Your task to perform on an android device: set the stopwatch Image 0: 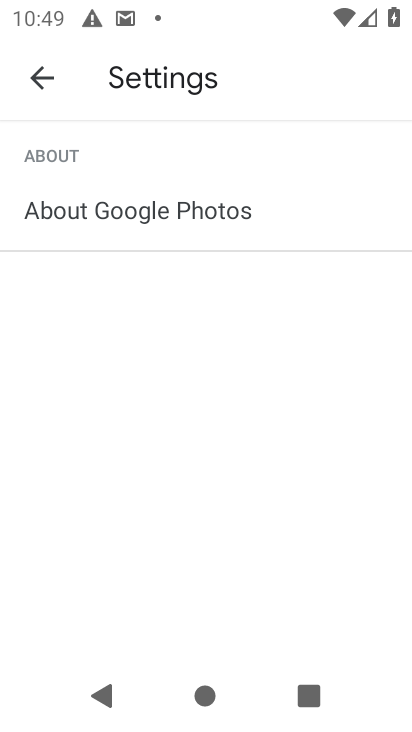
Step 0: press back button
Your task to perform on an android device: set the stopwatch Image 1: 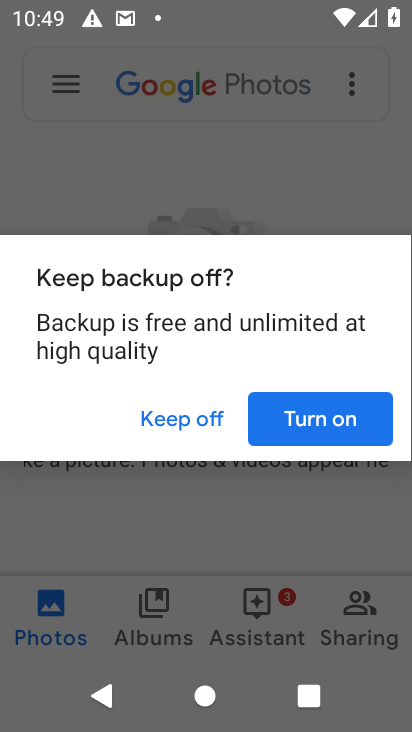
Step 1: press home button
Your task to perform on an android device: set the stopwatch Image 2: 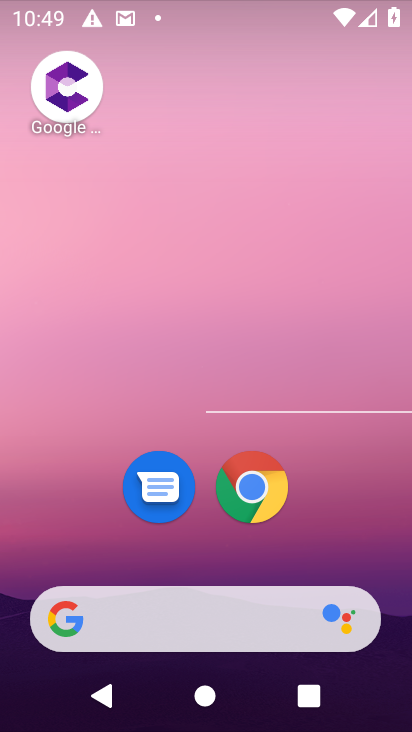
Step 2: drag from (196, 588) to (279, 21)
Your task to perform on an android device: set the stopwatch Image 3: 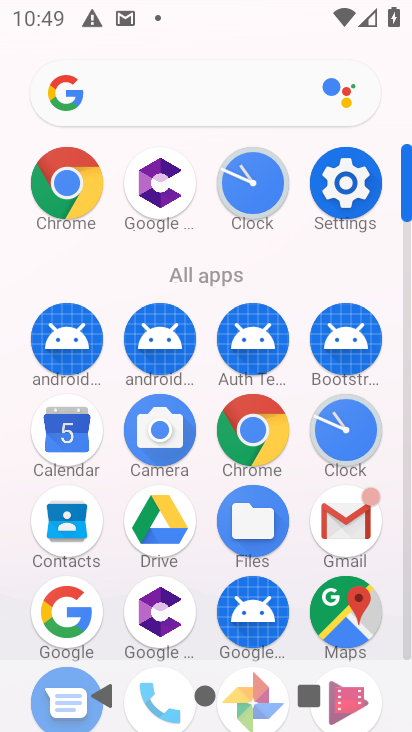
Step 3: click (351, 428)
Your task to perform on an android device: set the stopwatch Image 4: 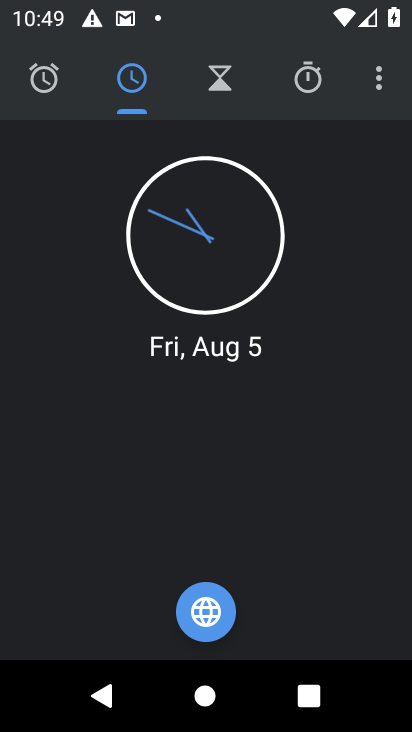
Step 4: click (301, 85)
Your task to perform on an android device: set the stopwatch Image 5: 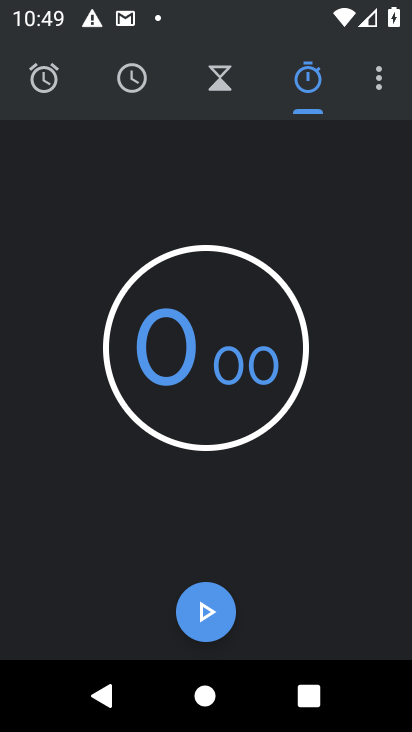
Step 5: click (211, 350)
Your task to perform on an android device: set the stopwatch Image 6: 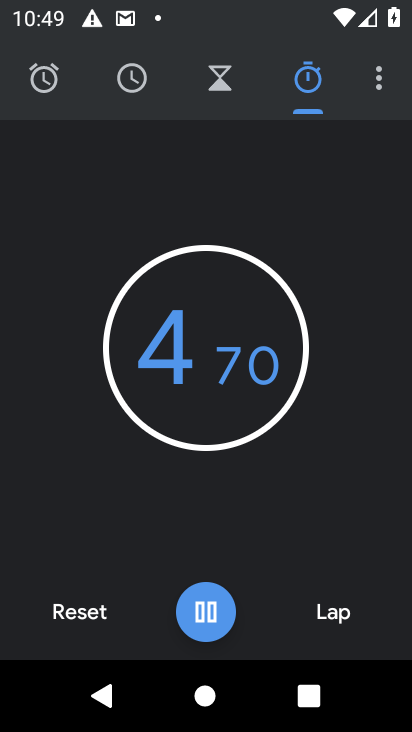
Step 6: click (211, 350)
Your task to perform on an android device: set the stopwatch Image 7: 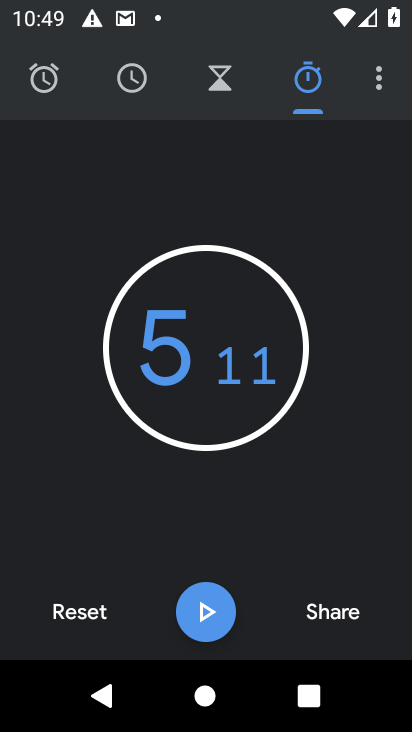
Step 7: task complete